Your task to perform on an android device: turn on airplane mode Image 0: 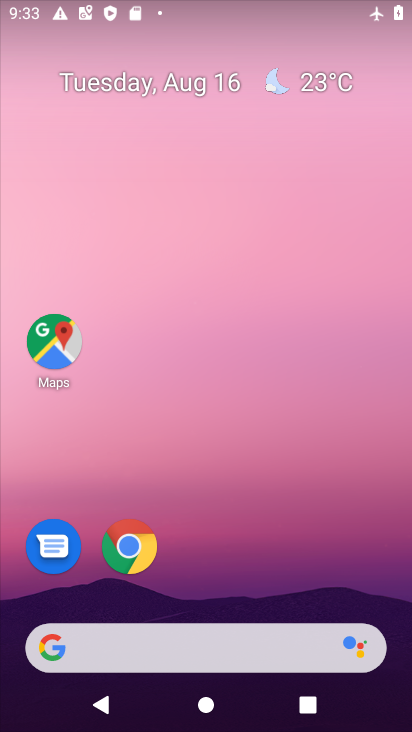
Step 0: drag from (211, 588) to (212, 0)
Your task to perform on an android device: turn on airplane mode Image 1: 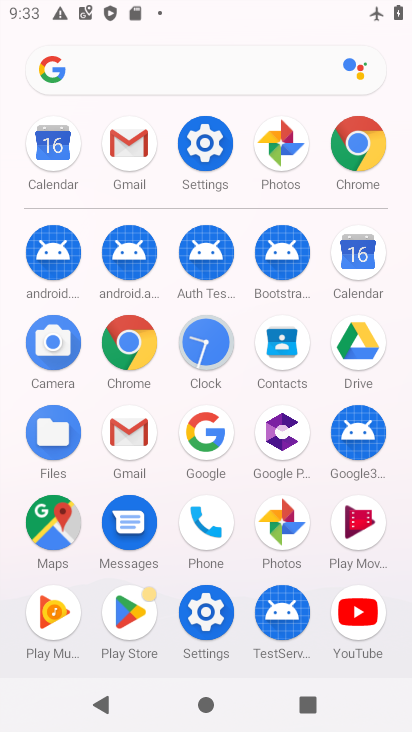
Step 1: click (204, 139)
Your task to perform on an android device: turn on airplane mode Image 2: 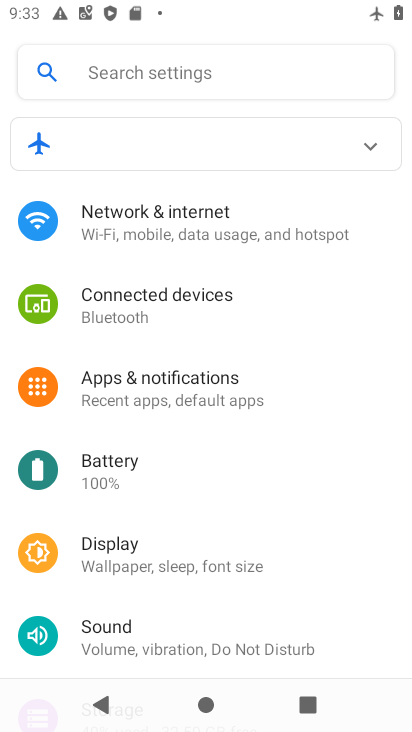
Step 2: click (212, 216)
Your task to perform on an android device: turn on airplane mode Image 3: 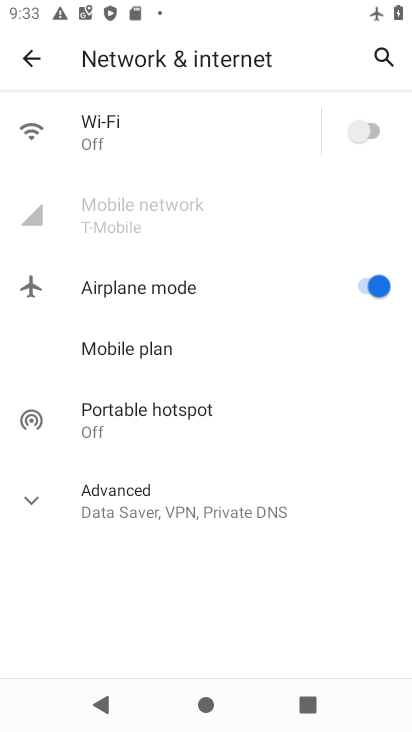
Step 3: task complete